Your task to perform on an android device: stop showing notifications on the lock screen Image 0: 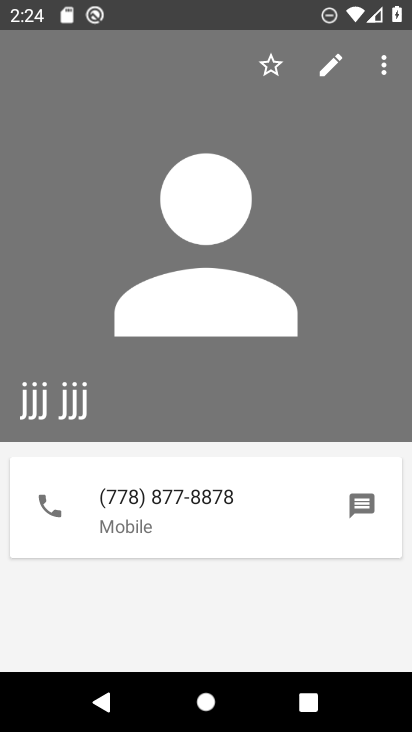
Step 0: press home button
Your task to perform on an android device: stop showing notifications on the lock screen Image 1: 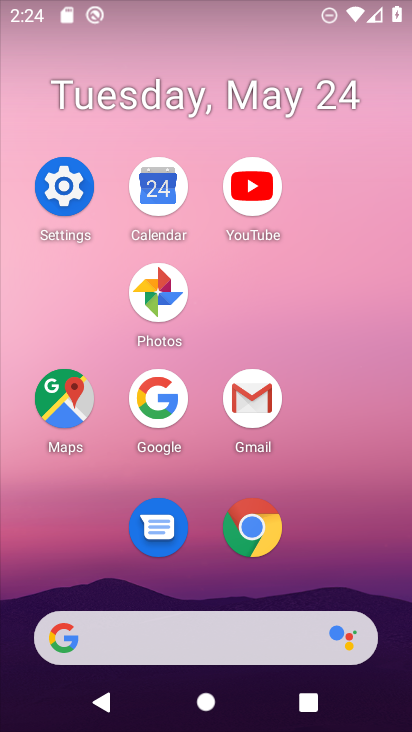
Step 1: click (45, 201)
Your task to perform on an android device: stop showing notifications on the lock screen Image 2: 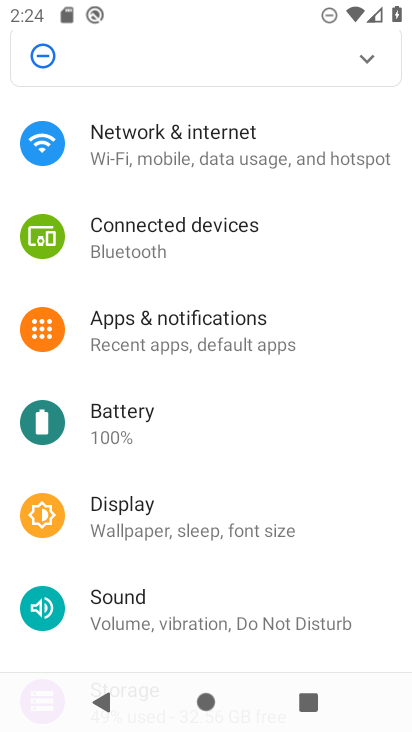
Step 2: click (227, 317)
Your task to perform on an android device: stop showing notifications on the lock screen Image 3: 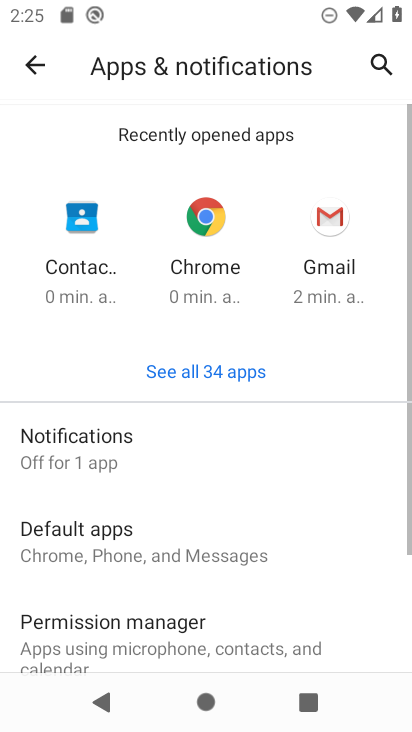
Step 3: click (214, 434)
Your task to perform on an android device: stop showing notifications on the lock screen Image 4: 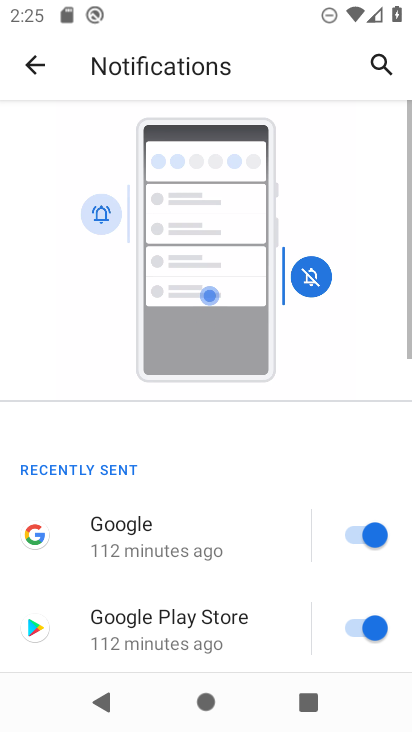
Step 4: drag from (218, 567) to (227, 258)
Your task to perform on an android device: stop showing notifications on the lock screen Image 5: 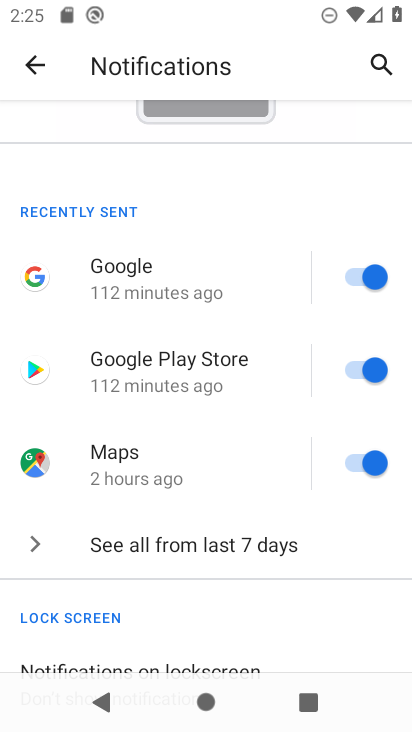
Step 5: drag from (210, 595) to (159, 280)
Your task to perform on an android device: stop showing notifications on the lock screen Image 6: 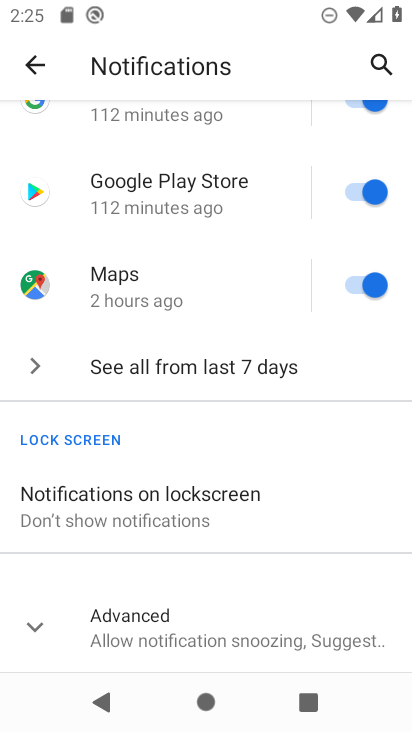
Step 6: click (161, 489)
Your task to perform on an android device: stop showing notifications on the lock screen Image 7: 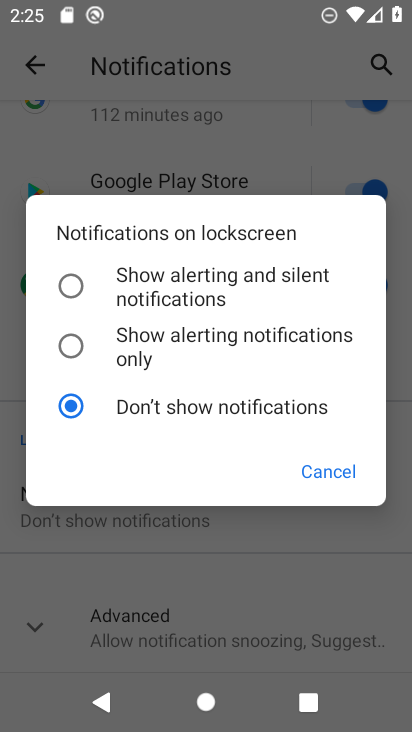
Step 7: task complete